Your task to perform on an android device: visit the assistant section in the google photos Image 0: 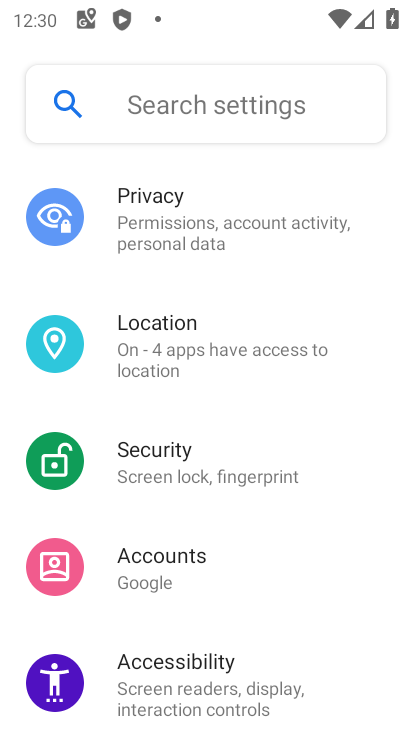
Step 0: press home button
Your task to perform on an android device: visit the assistant section in the google photos Image 1: 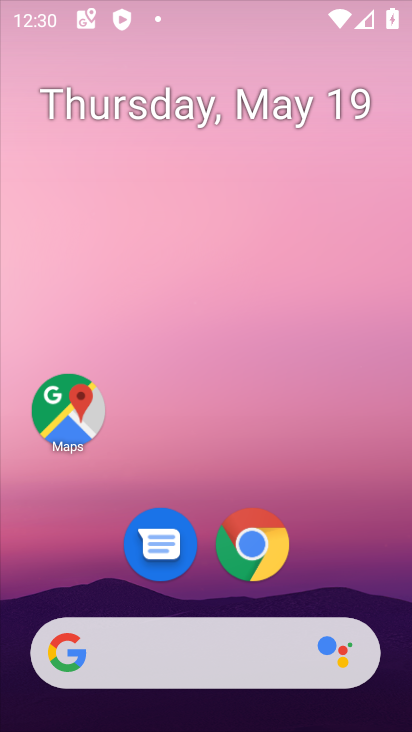
Step 1: drag from (210, 713) to (248, 311)
Your task to perform on an android device: visit the assistant section in the google photos Image 2: 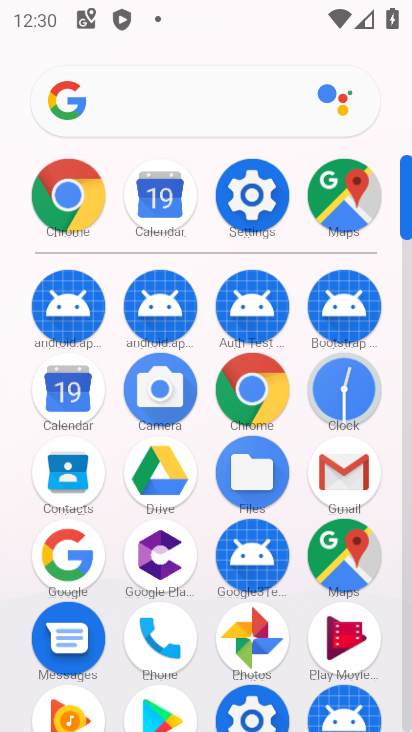
Step 2: click (271, 632)
Your task to perform on an android device: visit the assistant section in the google photos Image 3: 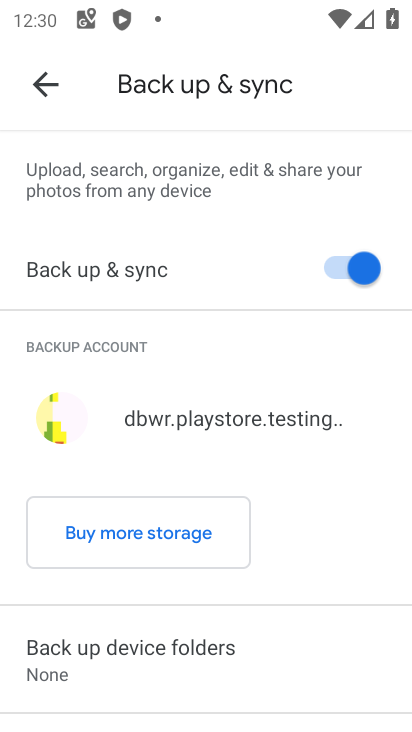
Step 3: press back button
Your task to perform on an android device: visit the assistant section in the google photos Image 4: 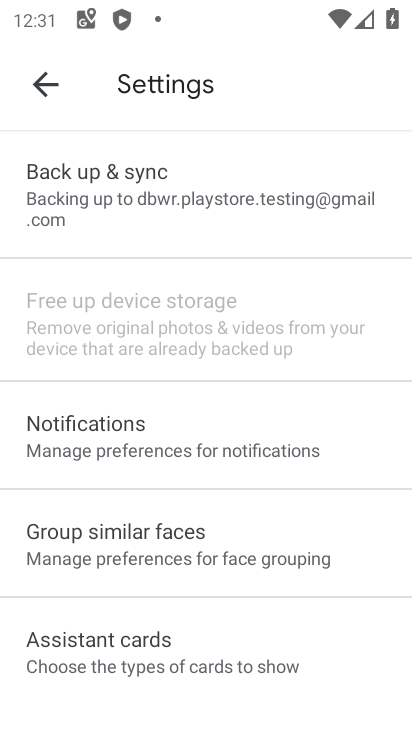
Step 4: press back button
Your task to perform on an android device: visit the assistant section in the google photos Image 5: 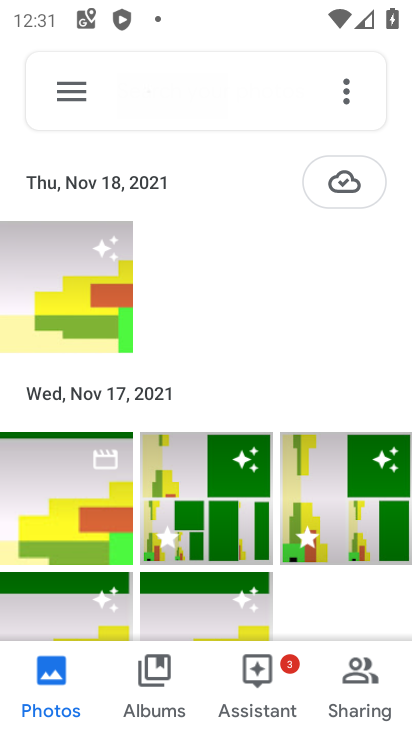
Step 5: click (272, 683)
Your task to perform on an android device: visit the assistant section in the google photos Image 6: 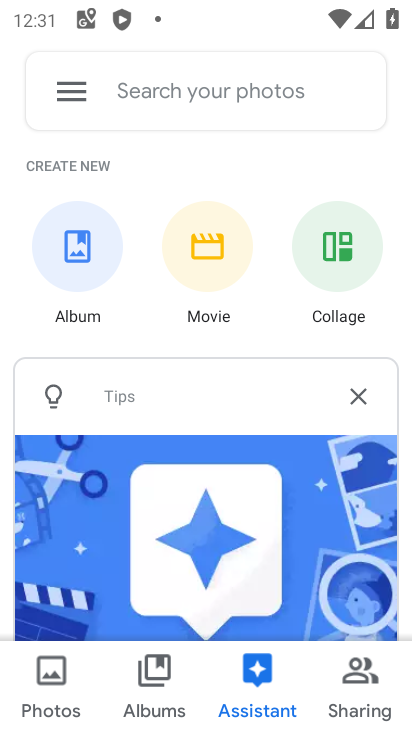
Step 6: press home button
Your task to perform on an android device: visit the assistant section in the google photos Image 7: 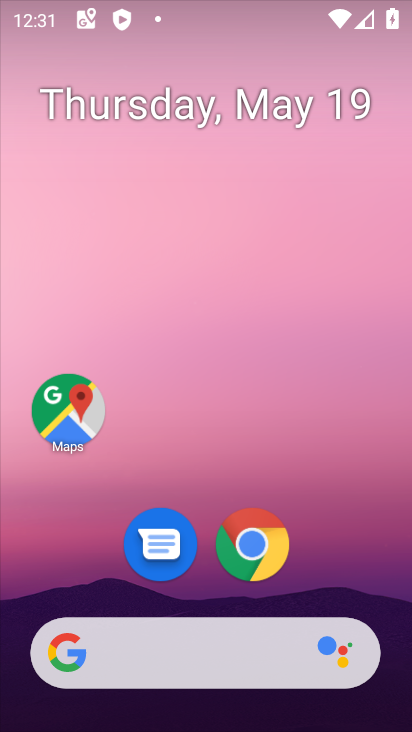
Step 7: drag from (265, 626) to (280, 195)
Your task to perform on an android device: visit the assistant section in the google photos Image 8: 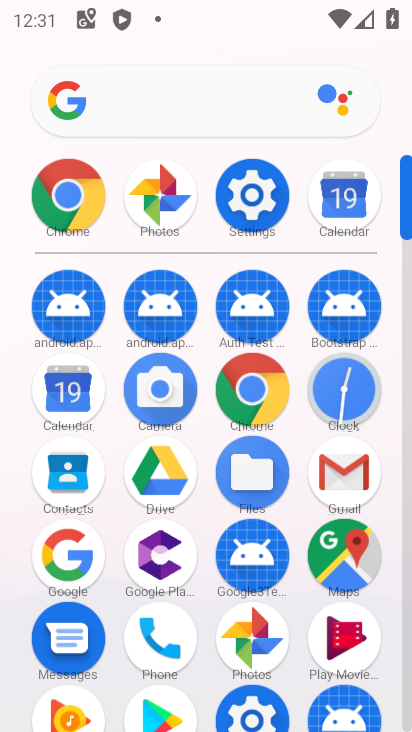
Step 8: click (270, 654)
Your task to perform on an android device: visit the assistant section in the google photos Image 9: 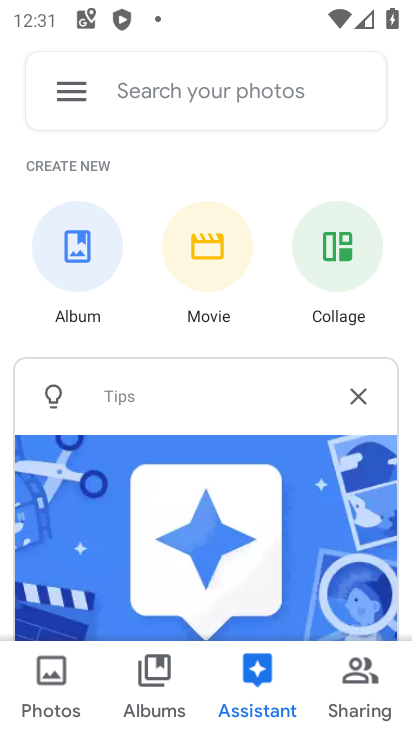
Step 9: task complete